Your task to perform on an android device: Open Google Maps Image 0: 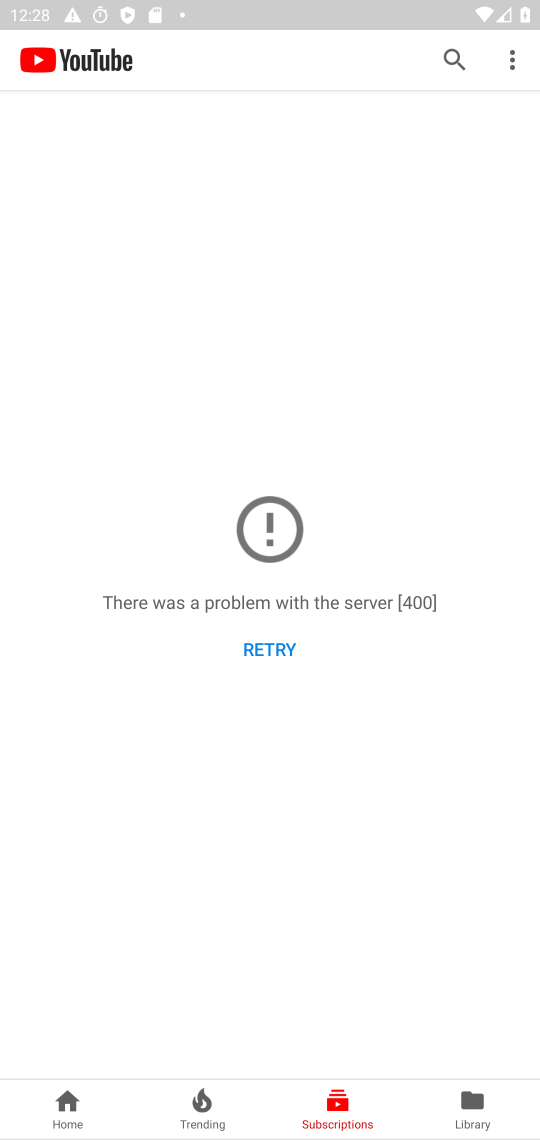
Step 0: press home button
Your task to perform on an android device: Open Google Maps Image 1: 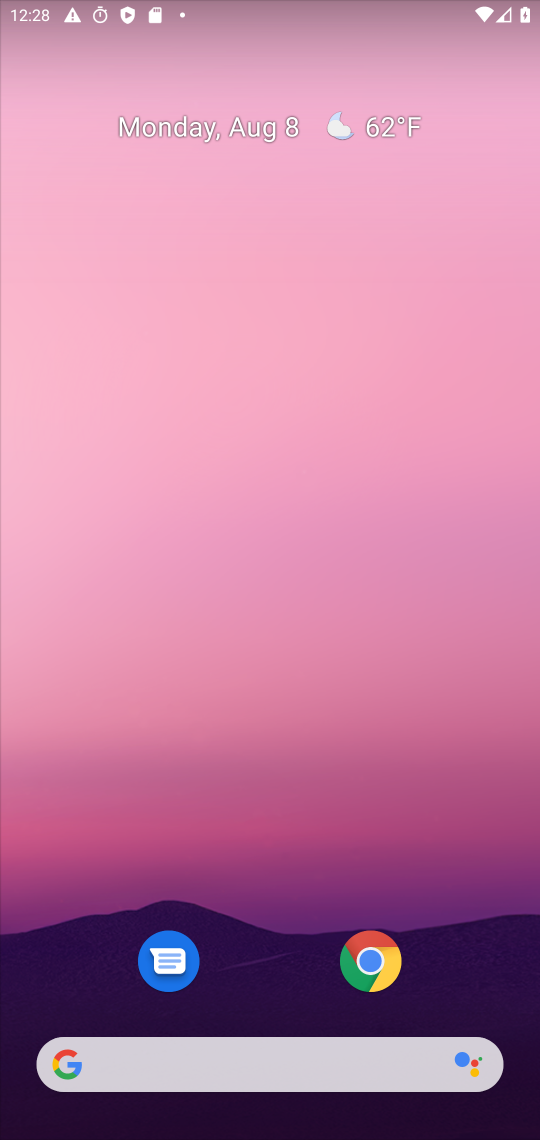
Step 1: drag from (267, 1065) to (270, 140)
Your task to perform on an android device: Open Google Maps Image 2: 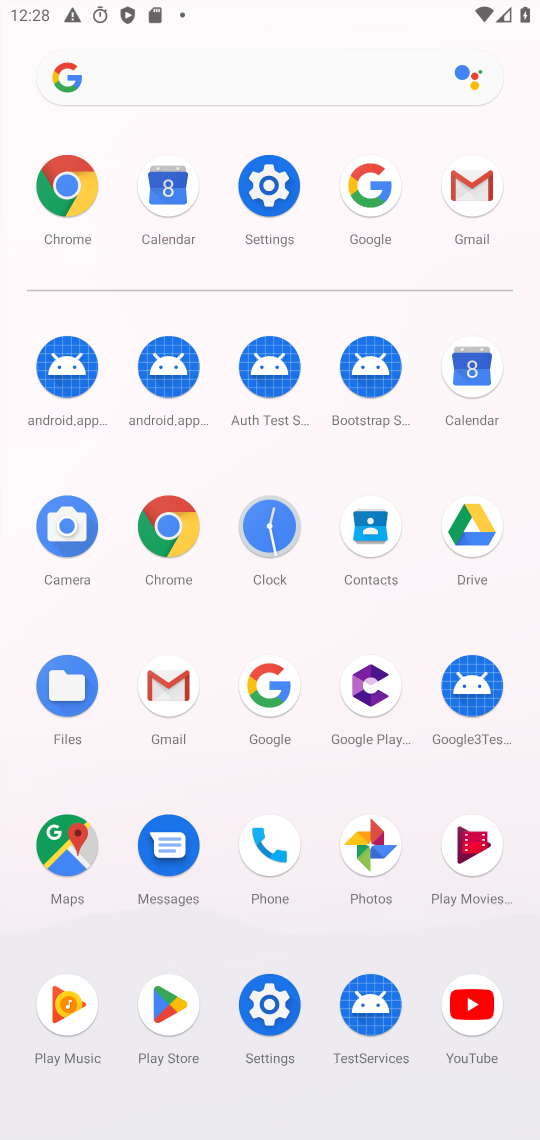
Step 2: click (72, 858)
Your task to perform on an android device: Open Google Maps Image 3: 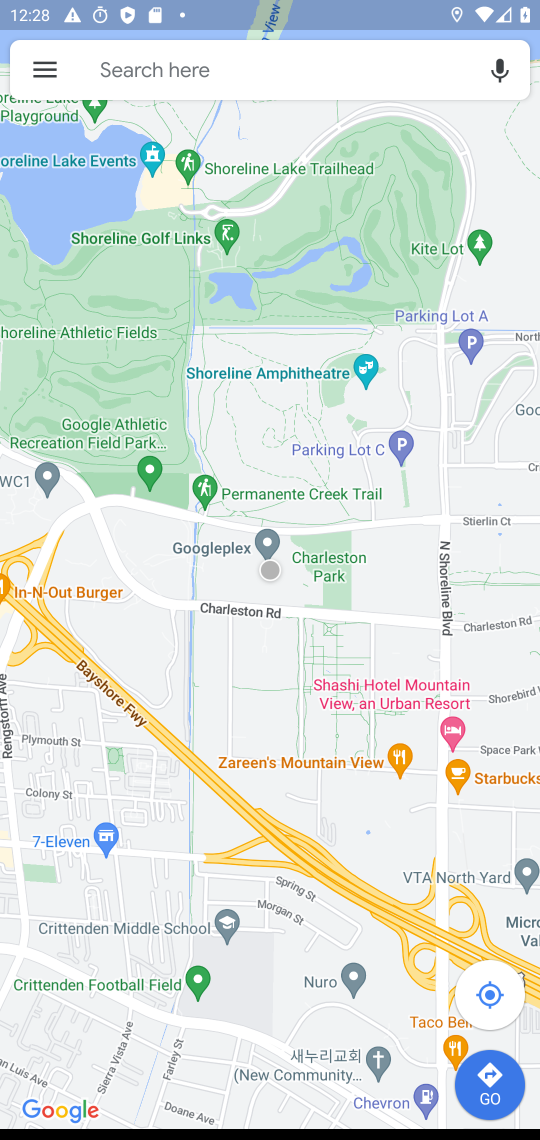
Step 3: task complete